Your task to perform on an android device: change your default location settings in chrome Image 0: 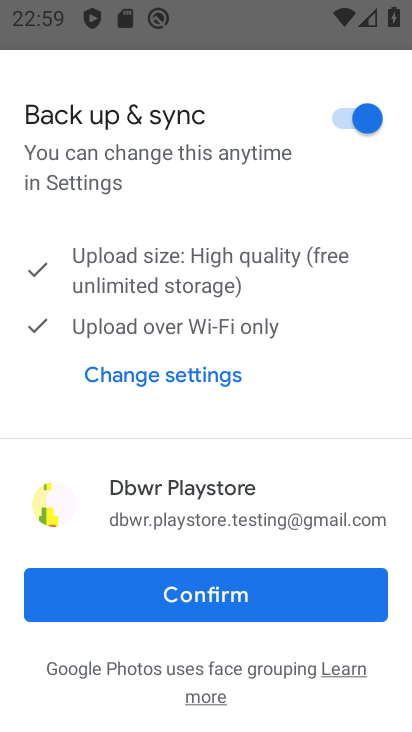
Step 0: press home button
Your task to perform on an android device: change your default location settings in chrome Image 1: 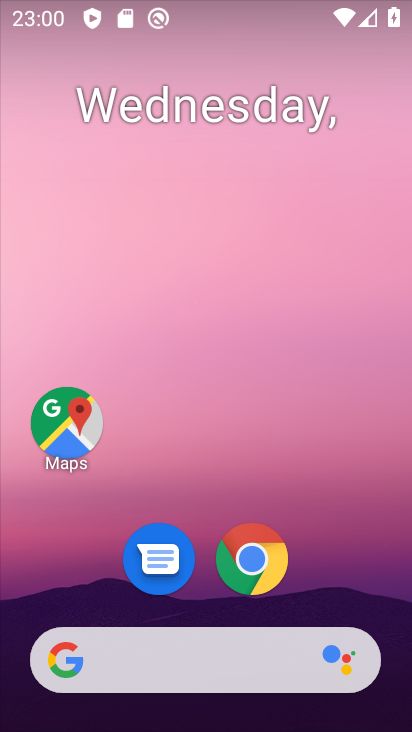
Step 1: click (251, 551)
Your task to perform on an android device: change your default location settings in chrome Image 2: 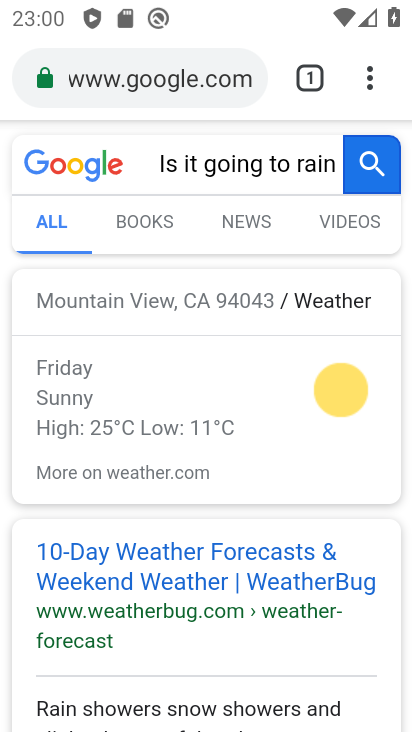
Step 2: click (366, 83)
Your task to perform on an android device: change your default location settings in chrome Image 3: 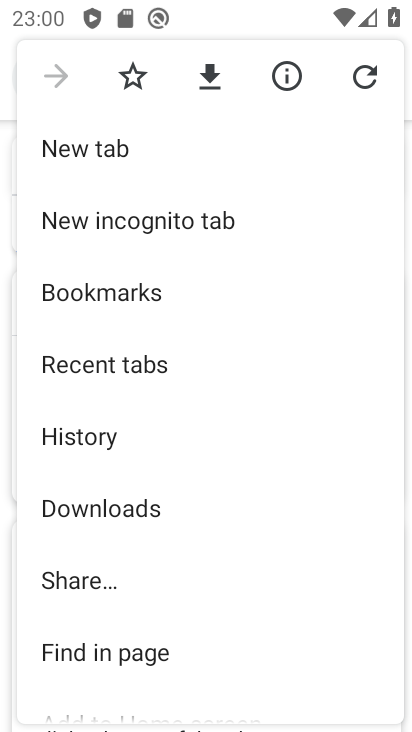
Step 3: drag from (97, 598) to (100, 184)
Your task to perform on an android device: change your default location settings in chrome Image 4: 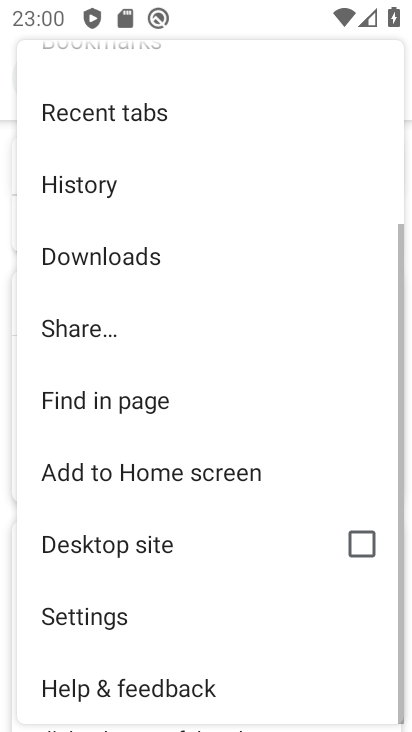
Step 4: click (89, 608)
Your task to perform on an android device: change your default location settings in chrome Image 5: 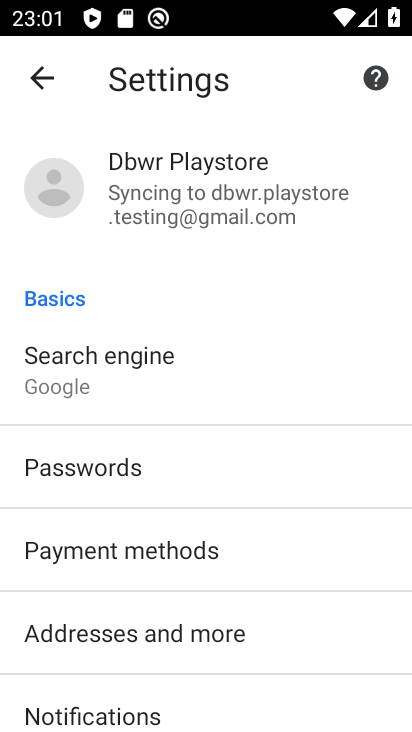
Step 5: drag from (131, 585) to (193, 227)
Your task to perform on an android device: change your default location settings in chrome Image 6: 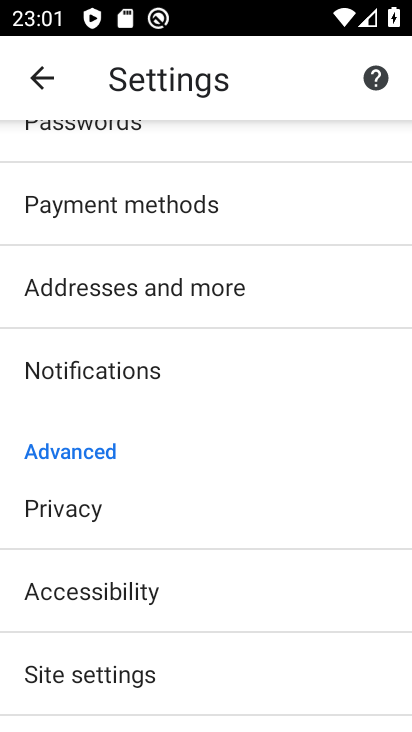
Step 6: drag from (143, 648) to (191, 225)
Your task to perform on an android device: change your default location settings in chrome Image 7: 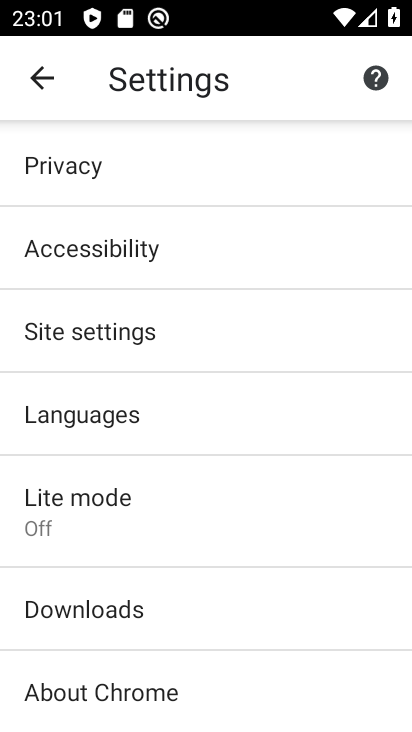
Step 7: drag from (139, 613) to (234, 217)
Your task to perform on an android device: change your default location settings in chrome Image 8: 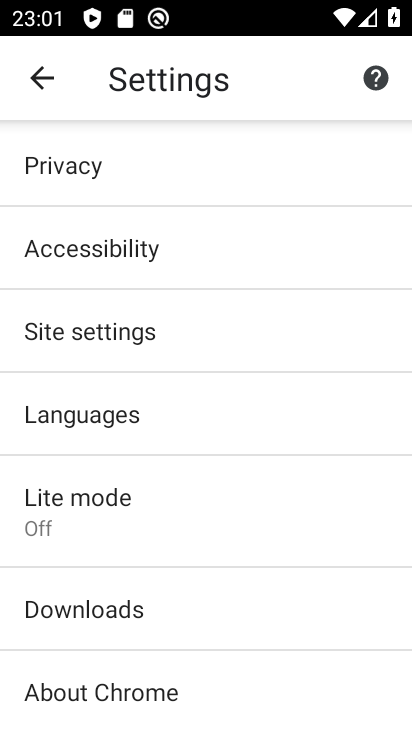
Step 8: drag from (232, 254) to (249, 593)
Your task to perform on an android device: change your default location settings in chrome Image 9: 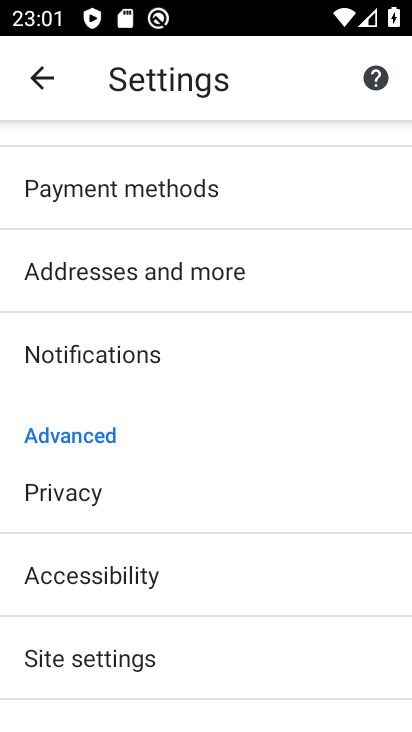
Step 9: drag from (189, 546) to (299, 190)
Your task to perform on an android device: change your default location settings in chrome Image 10: 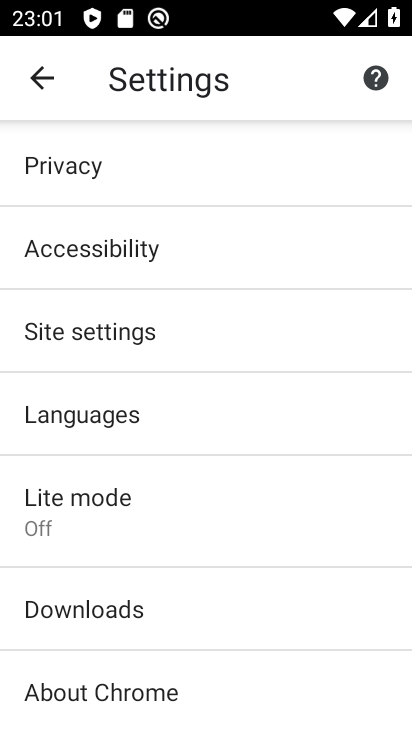
Step 10: drag from (109, 618) to (205, 270)
Your task to perform on an android device: change your default location settings in chrome Image 11: 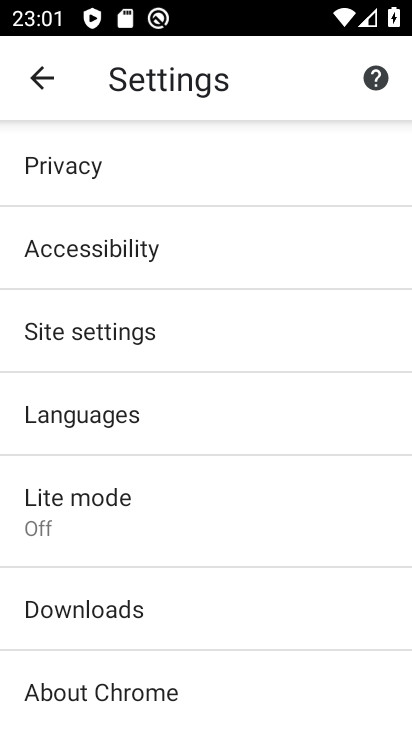
Step 11: drag from (187, 301) to (185, 685)
Your task to perform on an android device: change your default location settings in chrome Image 12: 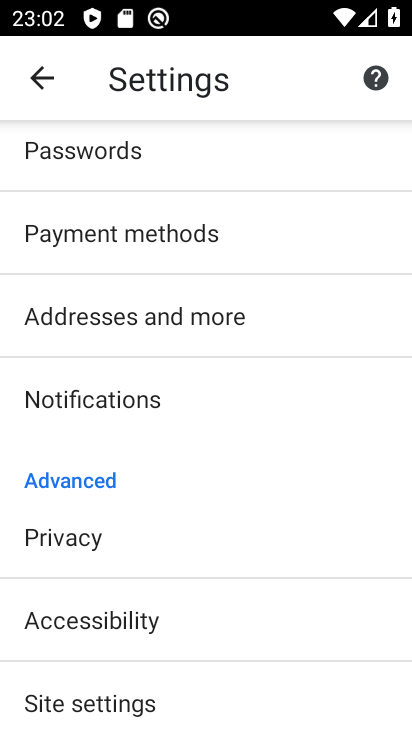
Step 12: drag from (182, 207) to (229, 177)
Your task to perform on an android device: change your default location settings in chrome Image 13: 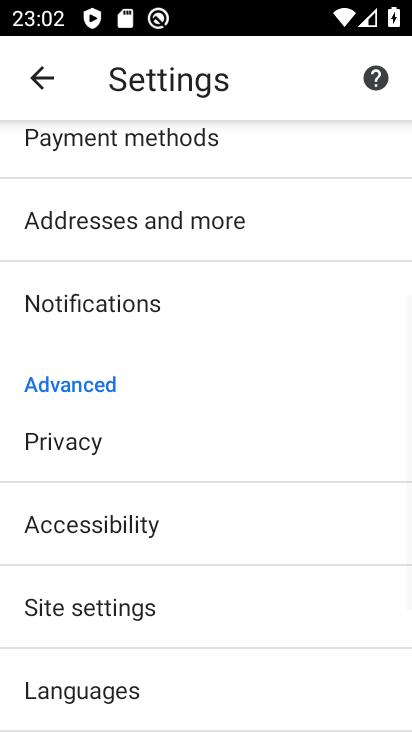
Step 13: drag from (127, 494) to (209, 205)
Your task to perform on an android device: change your default location settings in chrome Image 14: 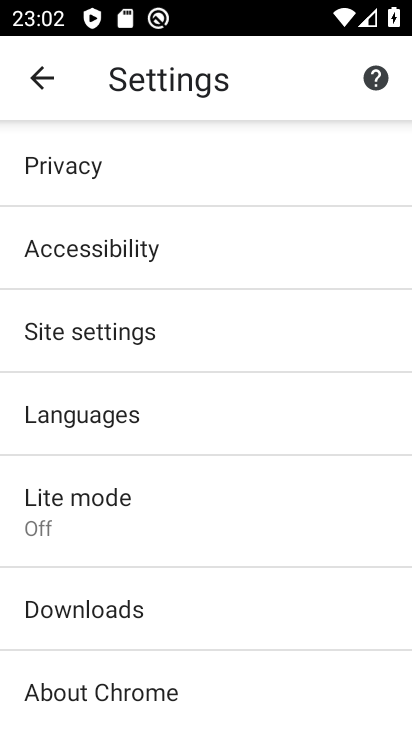
Step 14: click (88, 346)
Your task to perform on an android device: change your default location settings in chrome Image 15: 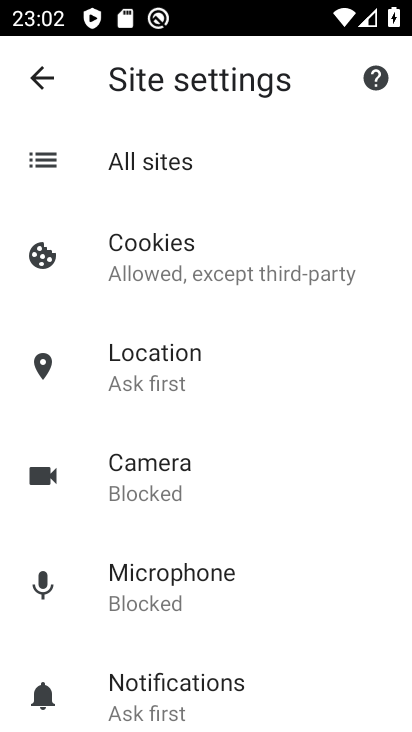
Step 15: click (184, 373)
Your task to perform on an android device: change your default location settings in chrome Image 16: 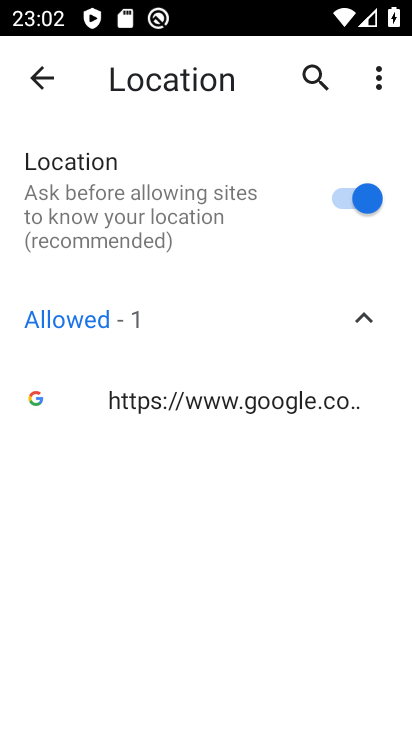
Step 16: task complete